Your task to perform on an android device: change the clock display to digital Image 0: 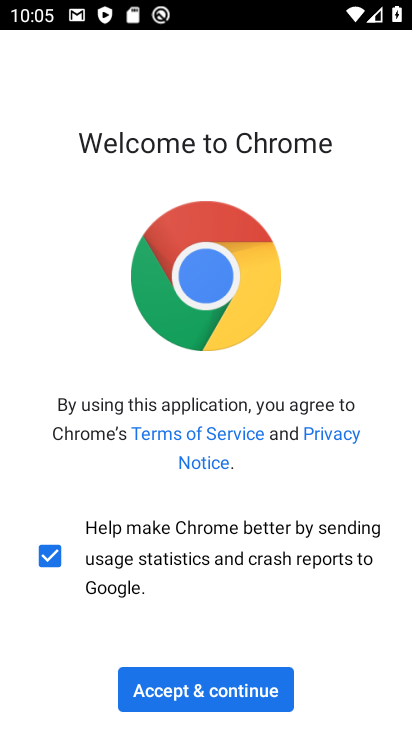
Step 0: press home button
Your task to perform on an android device: change the clock display to digital Image 1: 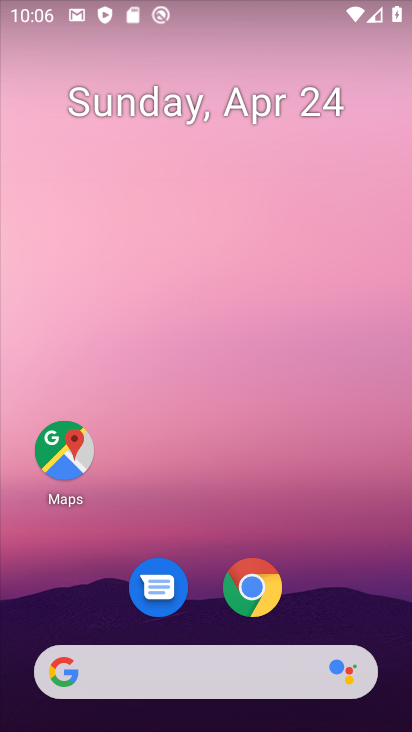
Step 1: drag from (340, 555) to (308, 105)
Your task to perform on an android device: change the clock display to digital Image 2: 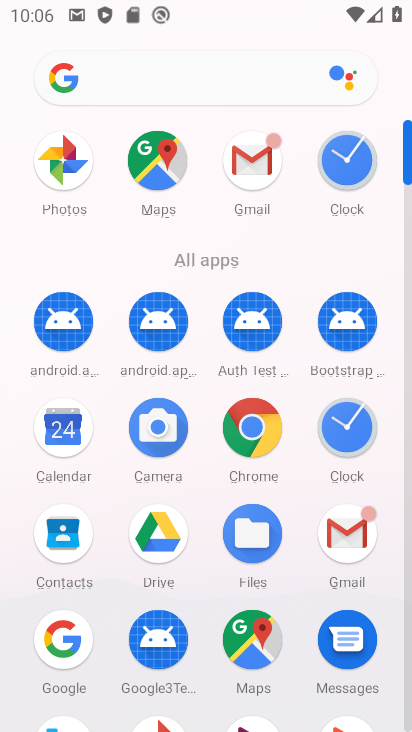
Step 2: click (361, 429)
Your task to perform on an android device: change the clock display to digital Image 3: 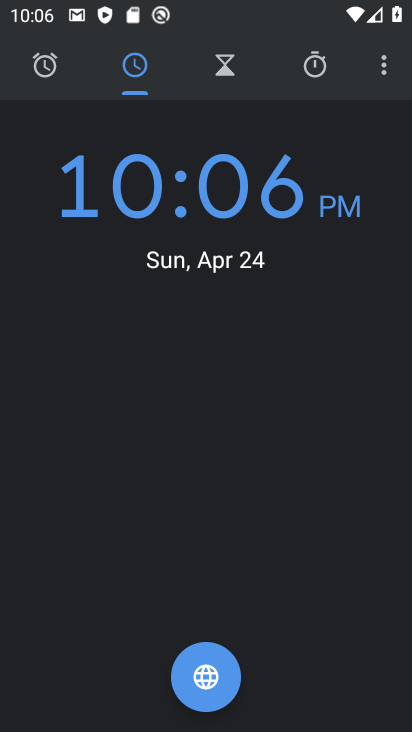
Step 3: click (380, 68)
Your task to perform on an android device: change the clock display to digital Image 4: 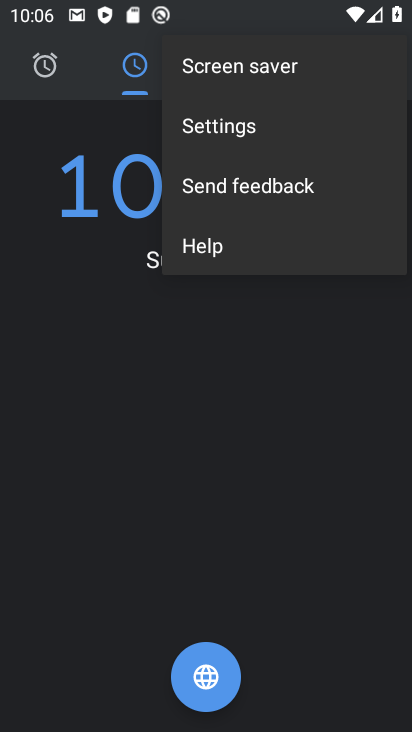
Step 4: click (223, 129)
Your task to perform on an android device: change the clock display to digital Image 5: 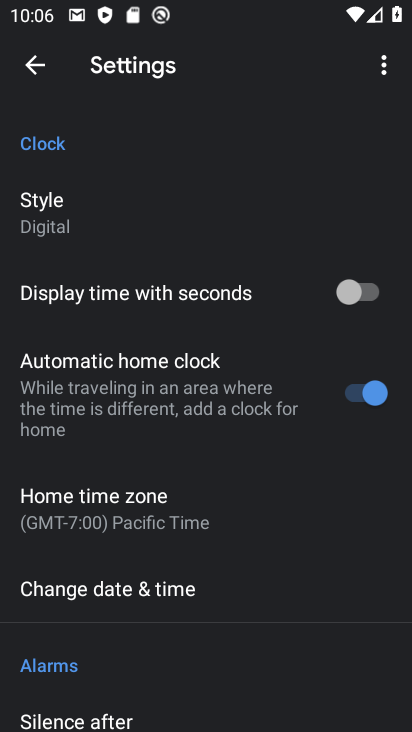
Step 5: task complete